Your task to perform on an android device: Is it going to rain tomorrow? Image 0: 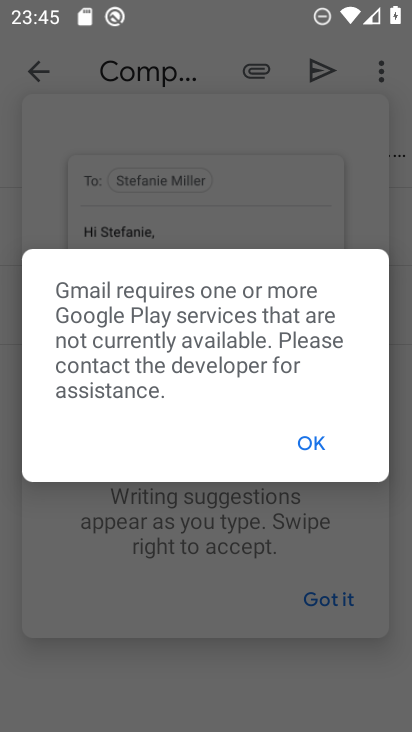
Step 0: press home button
Your task to perform on an android device: Is it going to rain tomorrow? Image 1: 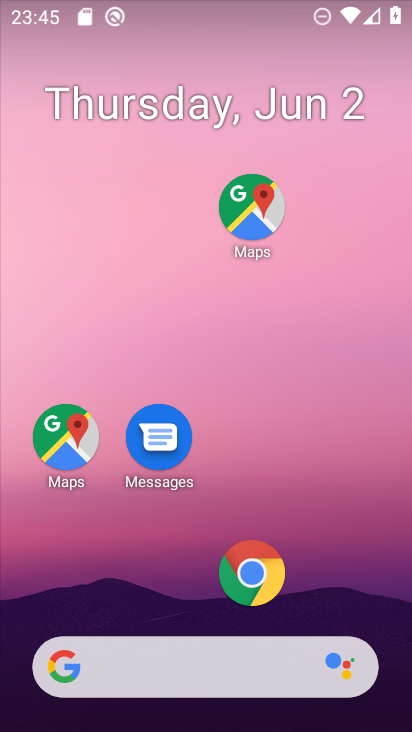
Step 1: click (124, 662)
Your task to perform on an android device: Is it going to rain tomorrow? Image 2: 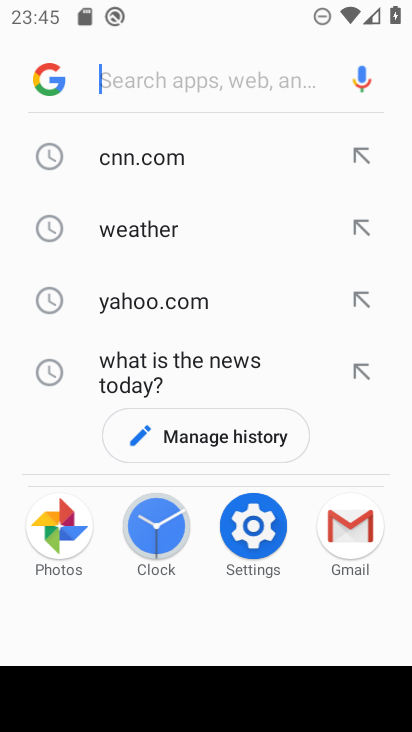
Step 2: click (276, 238)
Your task to perform on an android device: Is it going to rain tomorrow? Image 3: 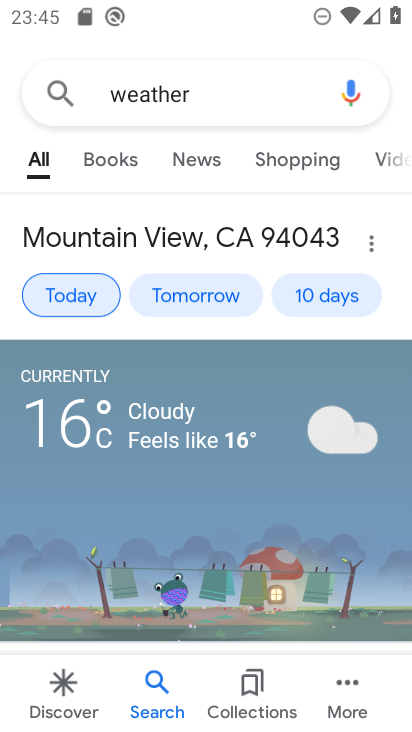
Step 3: click (182, 294)
Your task to perform on an android device: Is it going to rain tomorrow? Image 4: 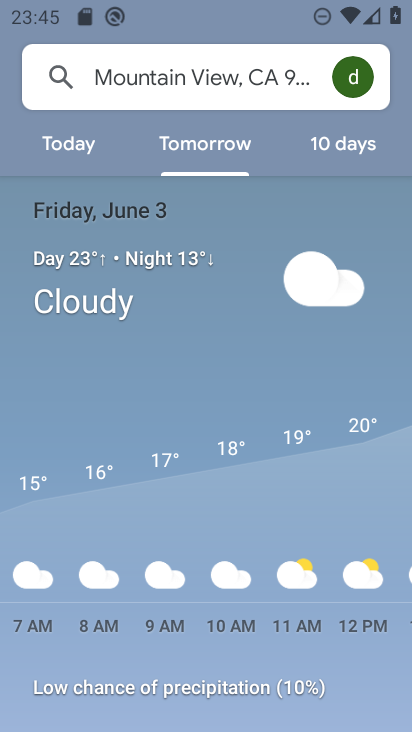
Step 4: task complete